Your task to perform on an android device: Open Reddit.com Image 0: 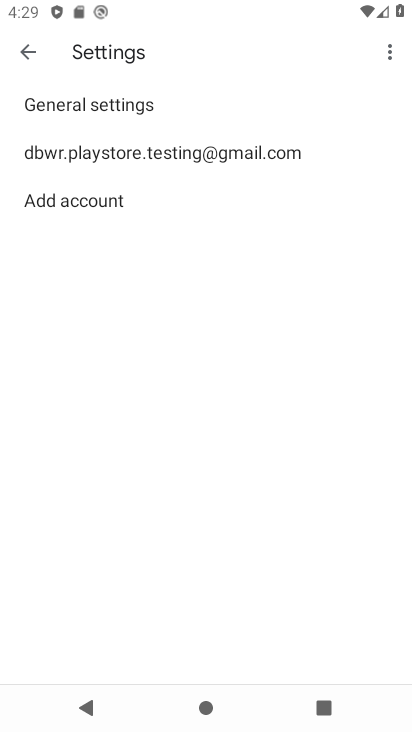
Step 0: press home button
Your task to perform on an android device: Open Reddit.com Image 1: 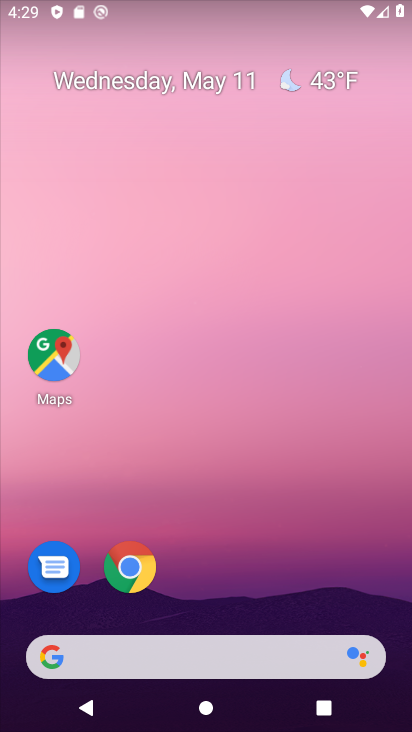
Step 1: click (138, 569)
Your task to perform on an android device: Open Reddit.com Image 2: 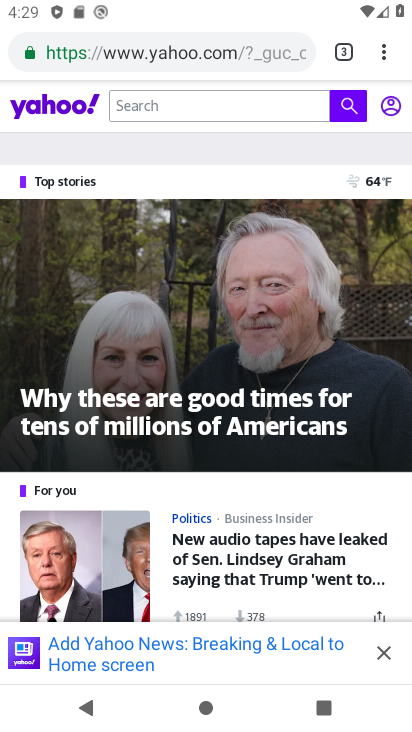
Step 2: click (336, 54)
Your task to perform on an android device: Open Reddit.com Image 3: 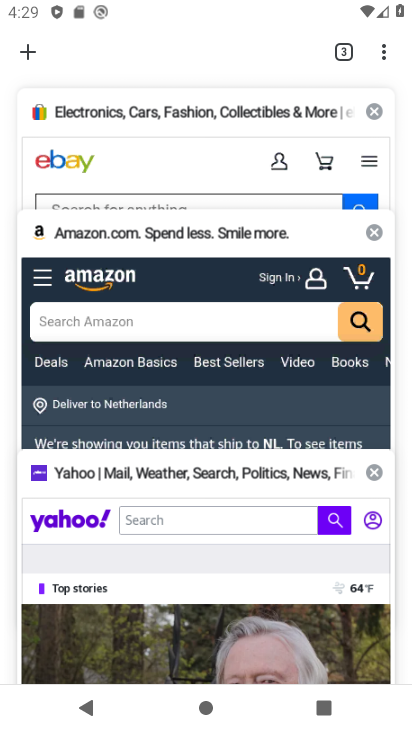
Step 3: click (28, 55)
Your task to perform on an android device: Open Reddit.com Image 4: 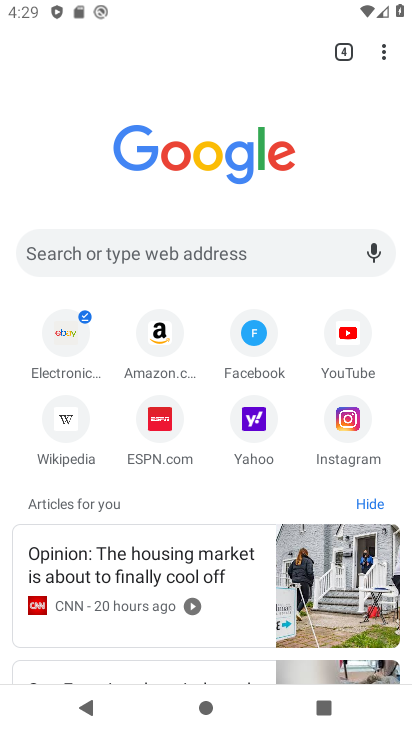
Step 4: click (142, 241)
Your task to perform on an android device: Open Reddit.com Image 5: 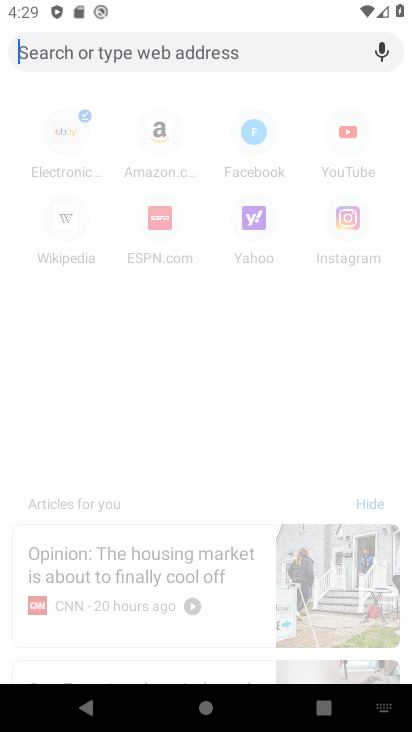
Step 5: type "reddit"
Your task to perform on an android device: Open Reddit.com Image 6: 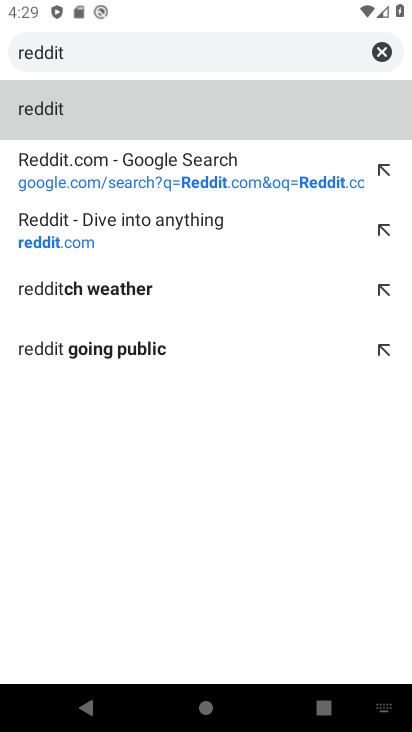
Step 6: click (68, 211)
Your task to perform on an android device: Open Reddit.com Image 7: 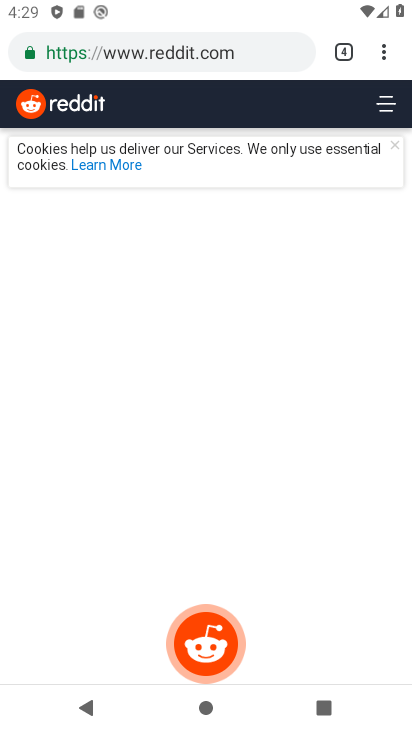
Step 7: task complete